Your task to perform on an android device: Go to eBay Image 0: 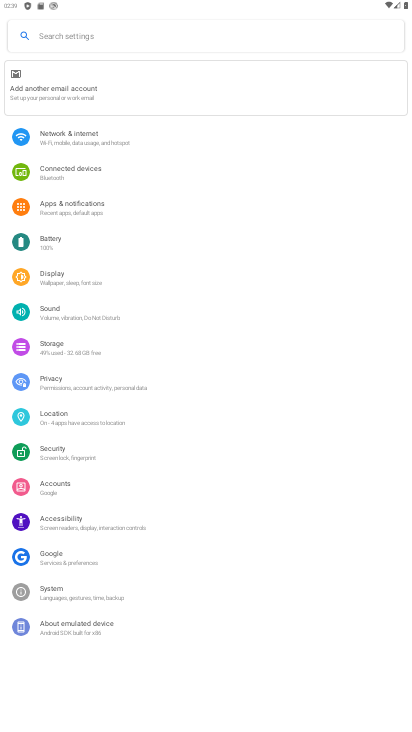
Step 0: press home button
Your task to perform on an android device: Go to eBay Image 1: 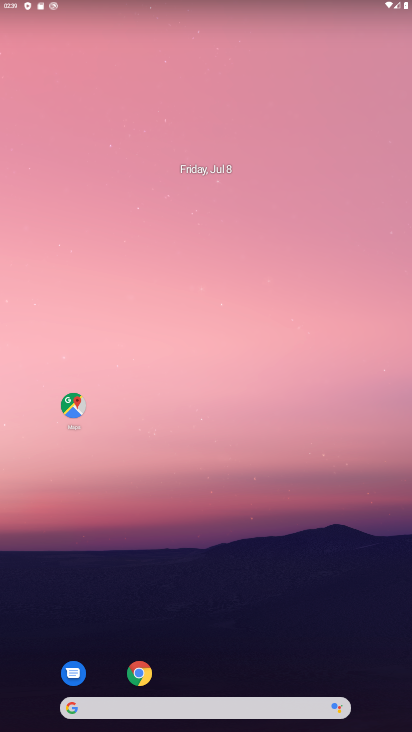
Step 1: click (134, 667)
Your task to perform on an android device: Go to eBay Image 2: 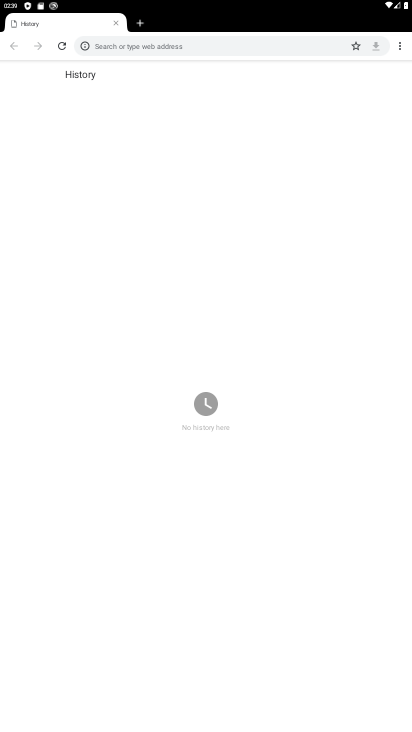
Step 2: click (119, 44)
Your task to perform on an android device: Go to eBay Image 3: 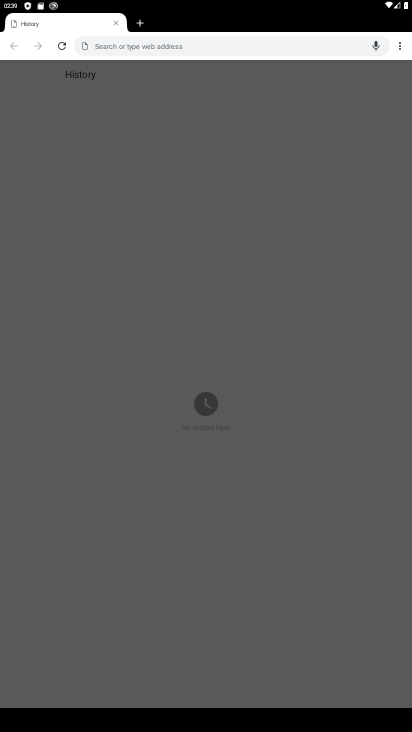
Step 3: type "ebay"
Your task to perform on an android device: Go to eBay Image 4: 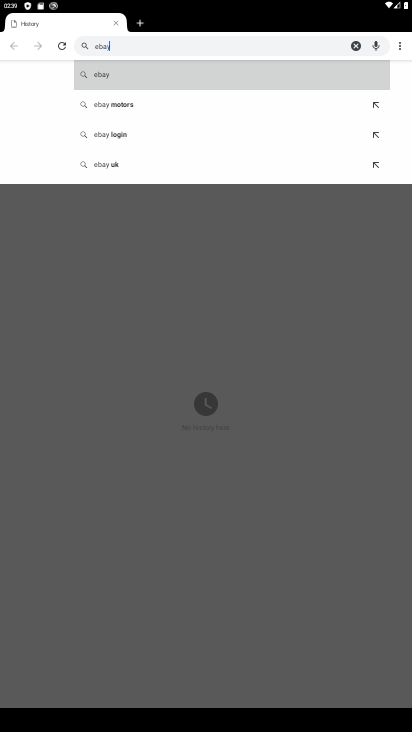
Step 4: click (100, 71)
Your task to perform on an android device: Go to eBay Image 5: 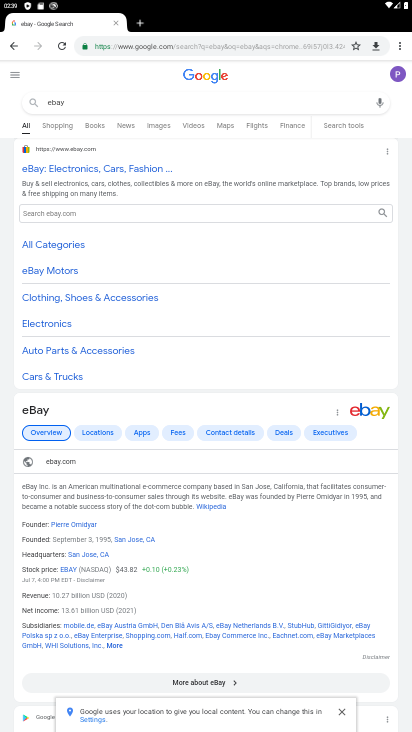
Step 5: click (63, 170)
Your task to perform on an android device: Go to eBay Image 6: 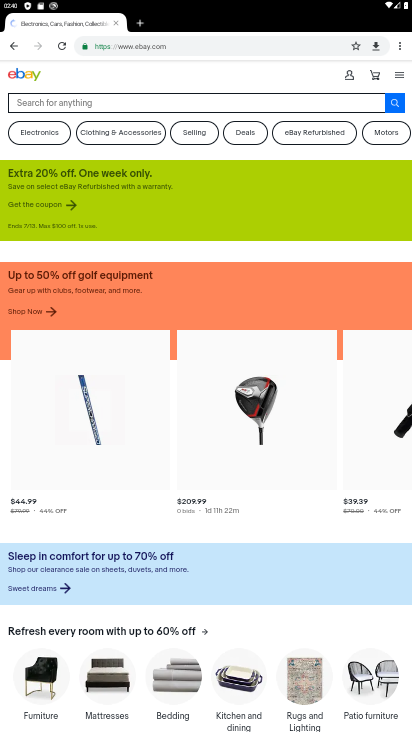
Step 6: task complete